Your task to perform on an android device: Search for Mexican restaurants on Maps Image 0: 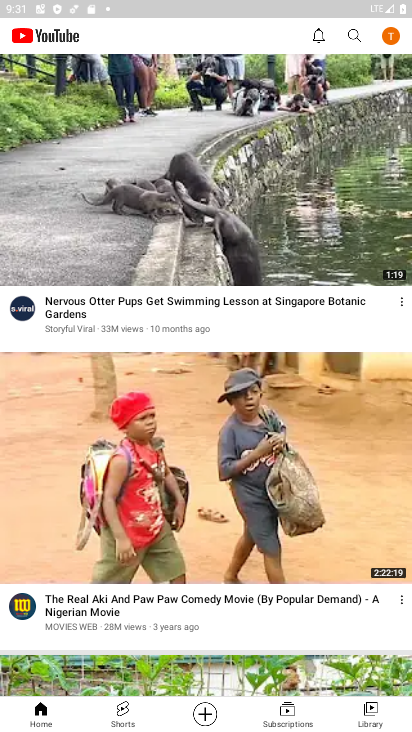
Step 0: press home button
Your task to perform on an android device: Search for Mexican restaurants on Maps Image 1: 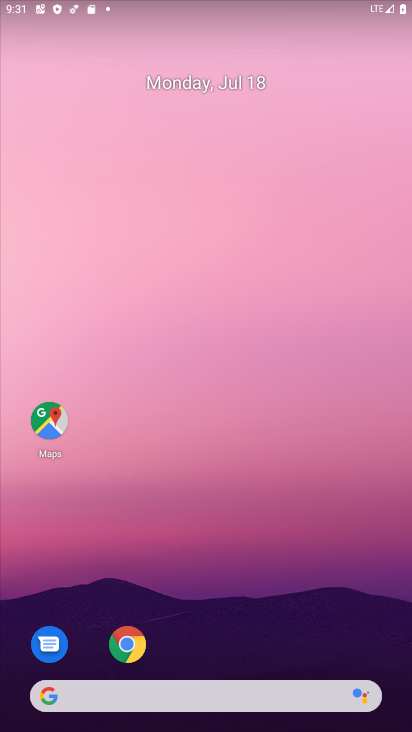
Step 1: drag from (164, 681) to (79, 12)
Your task to perform on an android device: Search for Mexican restaurants on Maps Image 2: 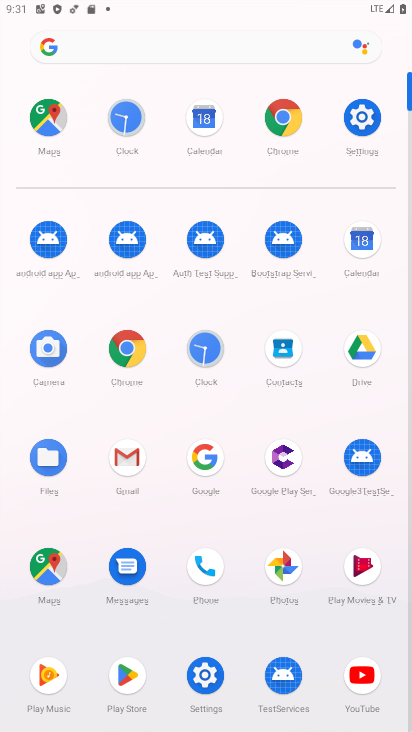
Step 2: click (123, 677)
Your task to perform on an android device: Search for Mexican restaurants on Maps Image 3: 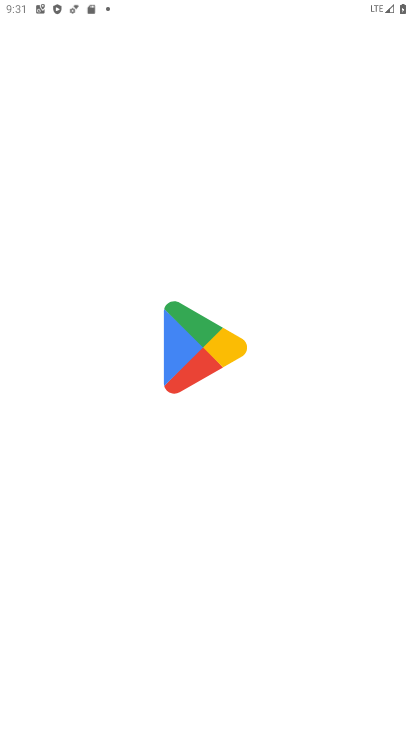
Step 3: press home button
Your task to perform on an android device: Search for Mexican restaurants on Maps Image 4: 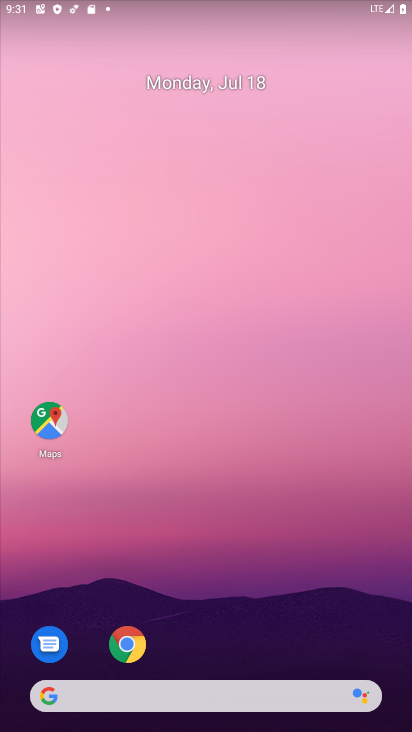
Step 4: click (39, 407)
Your task to perform on an android device: Search for Mexican restaurants on Maps Image 5: 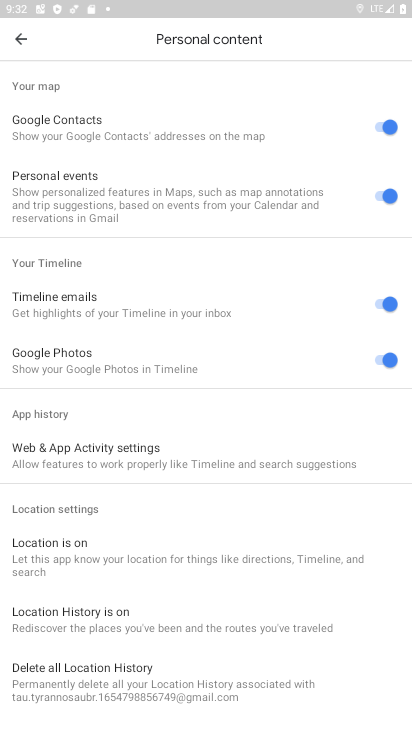
Step 5: click (7, 32)
Your task to perform on an android device: Search for Mexican restaurants on Maps Image 6: 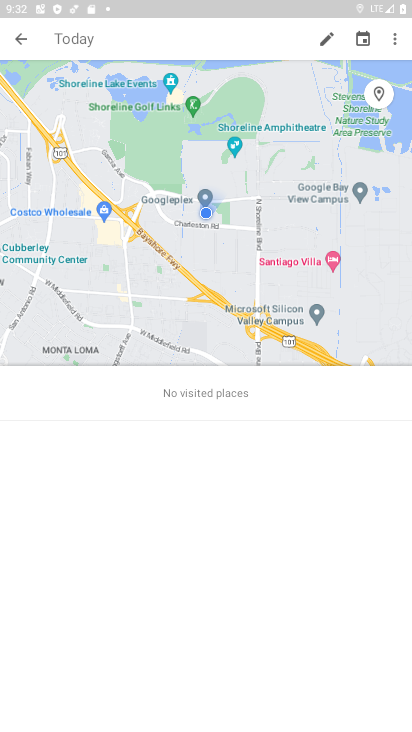
Step 6: click (17, 37)
Your task to perform on an android device: Search for Mexican restaurants on Maps Image 7: 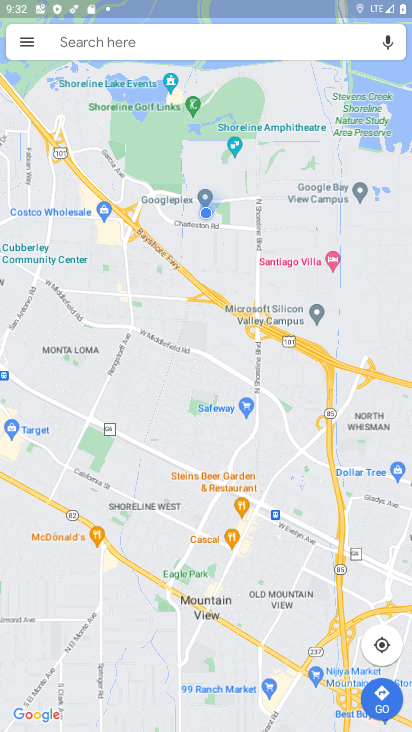
Step 7: click (92, 44)
Your task to perform on an android device: Search for Mexican restaurants on Maps Image 8: 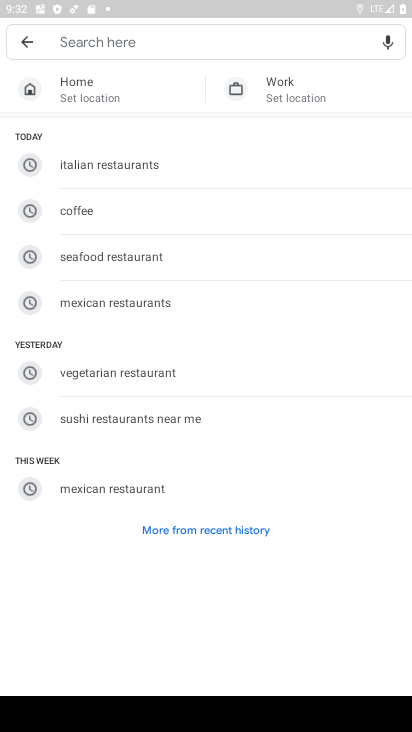
Step 8: click (107, 489)
Your task to perform on an android device: Search for Mexican restaurants on Maps Image 9: 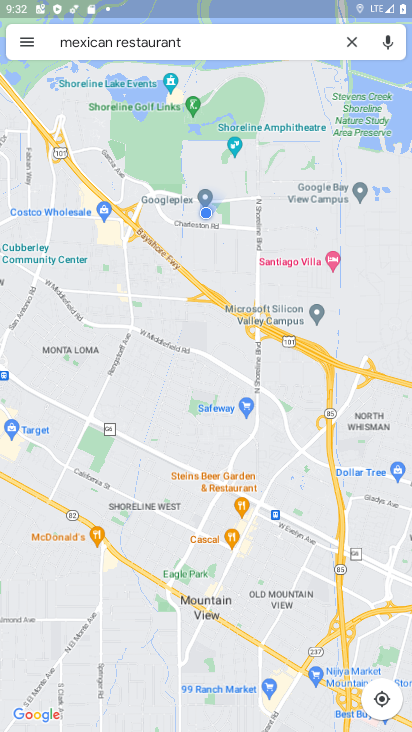
Step 9: task complete